Your task to perform on an android device: Open the map Image 0: 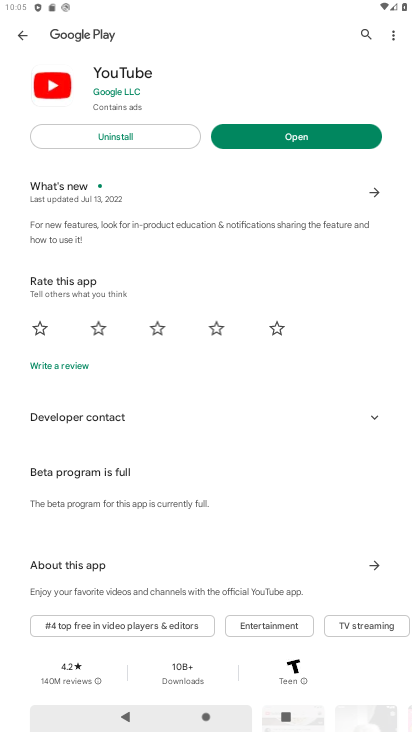
Step 0: press home button
Your task to perform on an android device: Open the map Image 1: 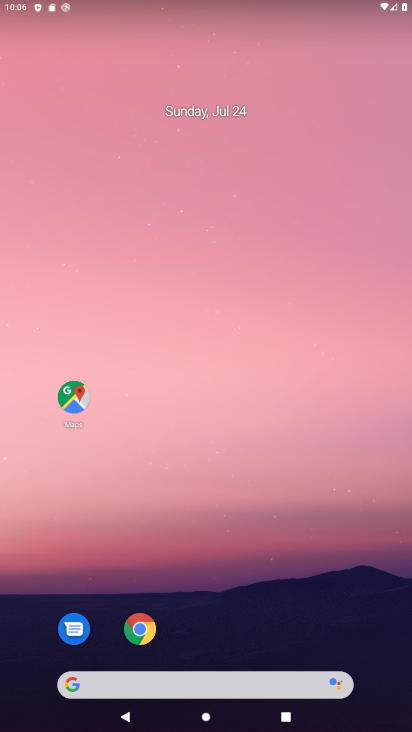
Step 1: click (73, 400)
Your task to perform on an android device: Open the map Image 2: 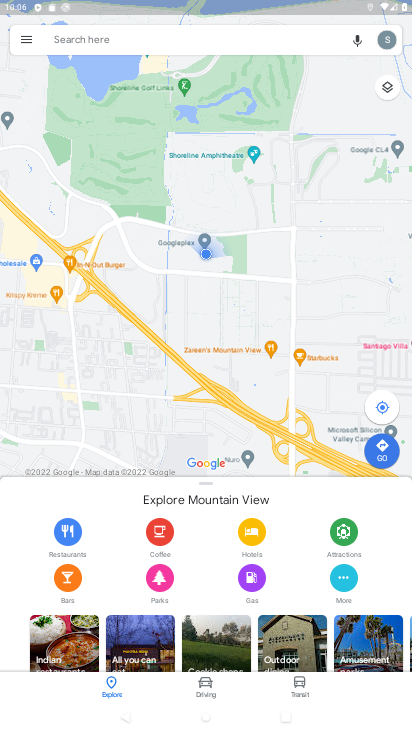
Step 2: task complete